Your task to perform on an android device: When is my next appointment? Image 0: 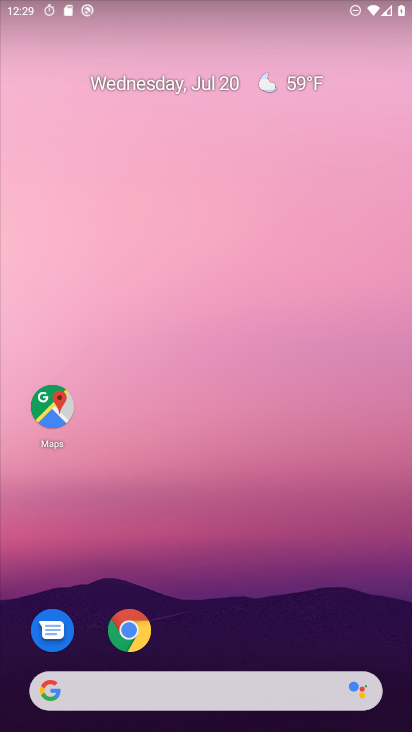
Step 0: drag from (291, 549) to (261, 23)
Your task to perform on an android device: When is my next appointment? Image 1: 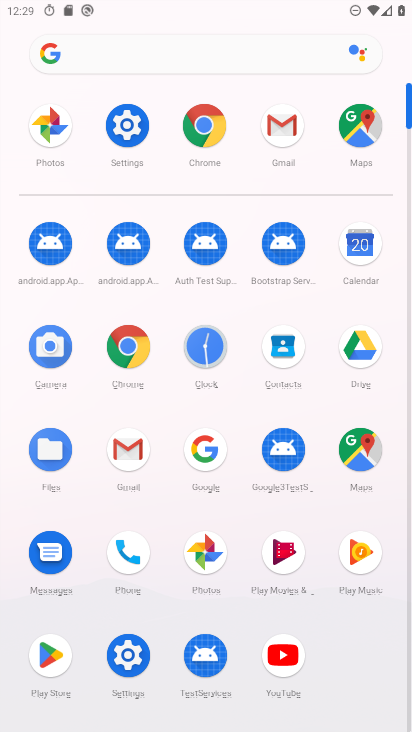
Step 1: click (358, 253)
Your task to perform on an android device: When is my next appointment? Image 2: 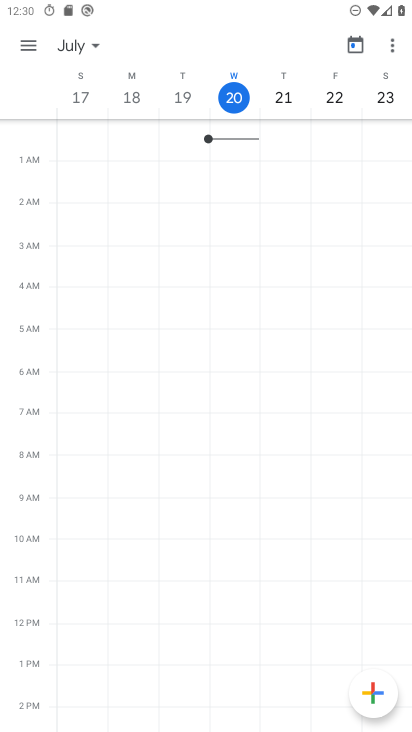
Step 2: click (234, 100)
Your task to perform on an android device: When is my next appointment? Image 3: 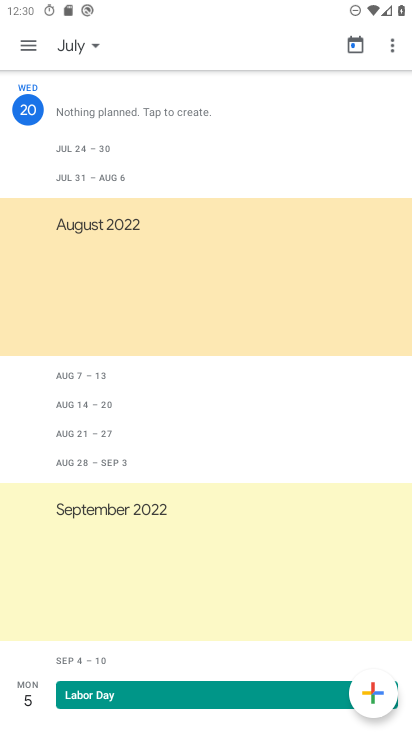
Step 3: task complete